Your task to perform on an android device: change notification settings in the gmail app Image 0: 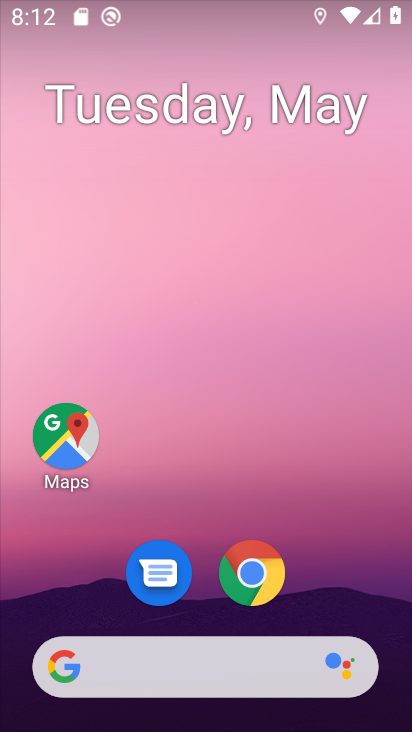
Step 0: drag from (387, 521) to (394, 259)
Your task to perform on an android device: change notification settings in the gmail app Image 1: 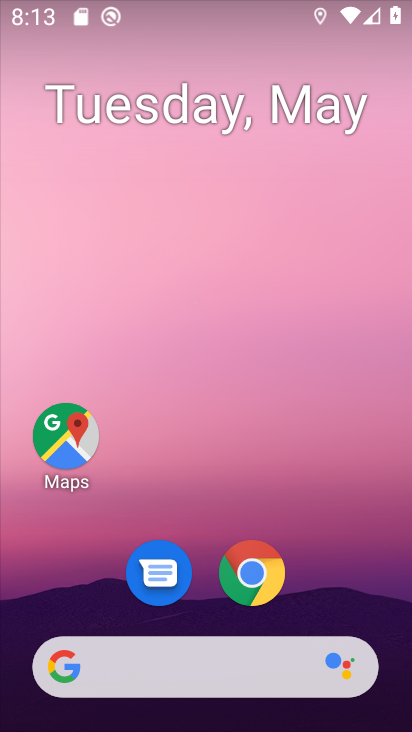
Step 1: drag from (391, 470) to (395, 192)
Your task to perform on an android device: change notification settings in the gmail app Image 2: 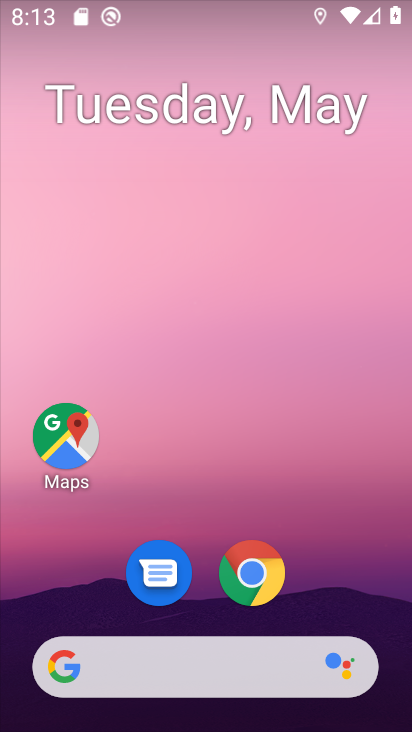
Step 2: drag from (388, 714) to (399, 320)
Your task to perform on an android device: change notification settings in the gmail app Image 3: 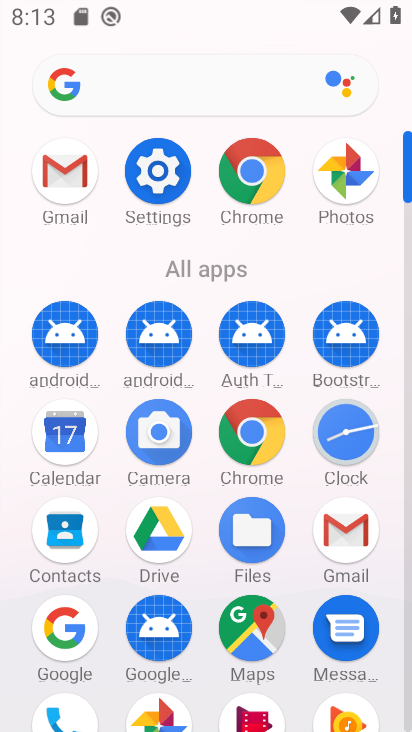
Step 3: click (356, 533)
Your task to perform on an android device: change notification settings in the gmail app Image 4: 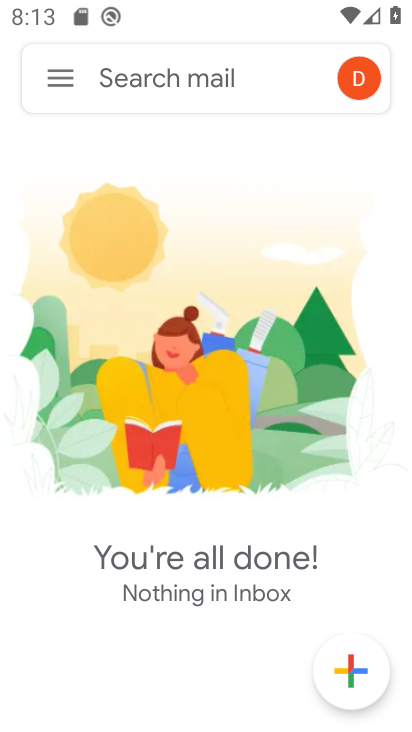
Step 4: click (58, 65)
Your task to perform on an android device: change notification settings in the gmail app Image 5: 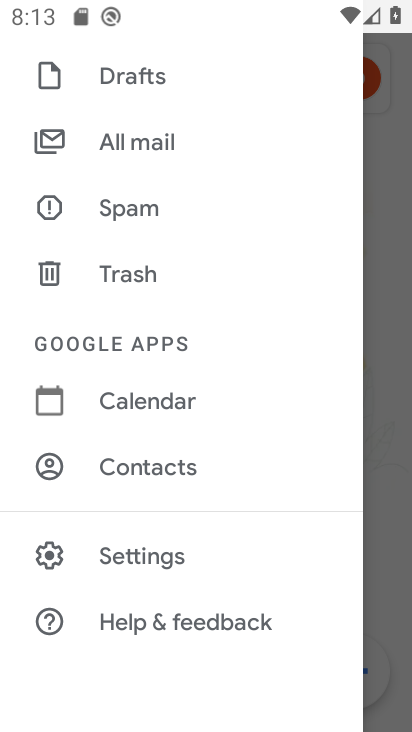
Step 5: click (143, 559)
Your task to perform on an android device: change notification settings in the gmail app Image 6: 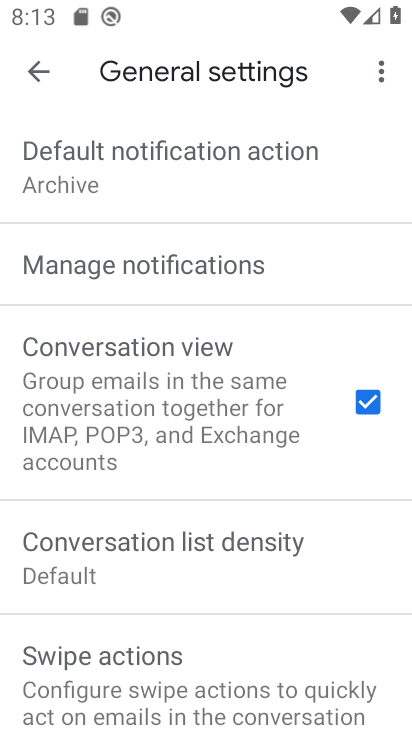
Step 6: click (205, 265)
Your task to perform on an android device: change notification settings in the gmail app Image 7: 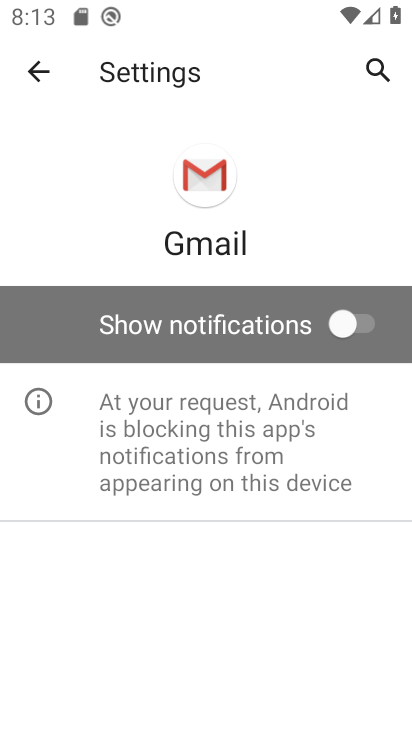
Step 7: click (373, 318)
Your task to perform on an android device: change notification settings in the gmail app Image 8: 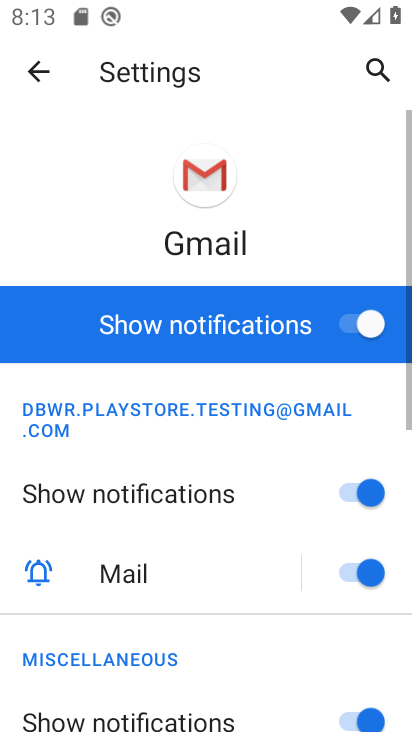
Step 8: task complete